Your task to perform on an android device: What's the weather going to be tomorrow? Image 0: 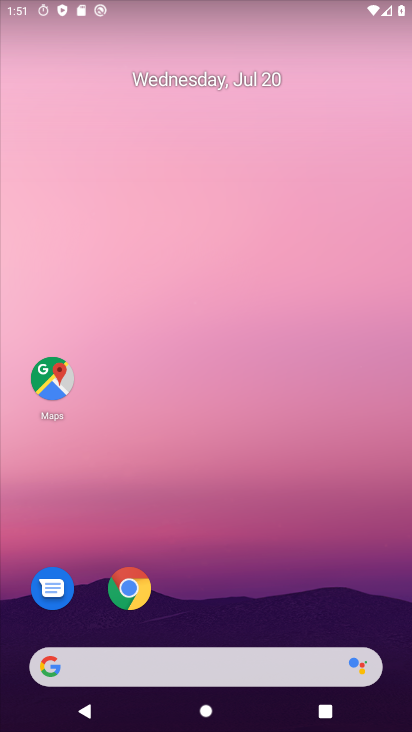
Step 0: drag from (216, 654) to (217, 7)
Your task to perform on an android device: What's the weather going to be tomorrow? Image 1: 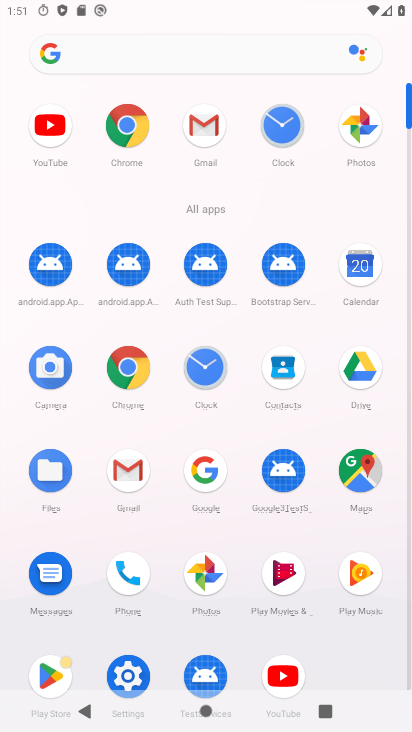
Step 1: click (130, 371)
Your task to perform on an android device: What's the weather going to be tomorrow? Image 2: 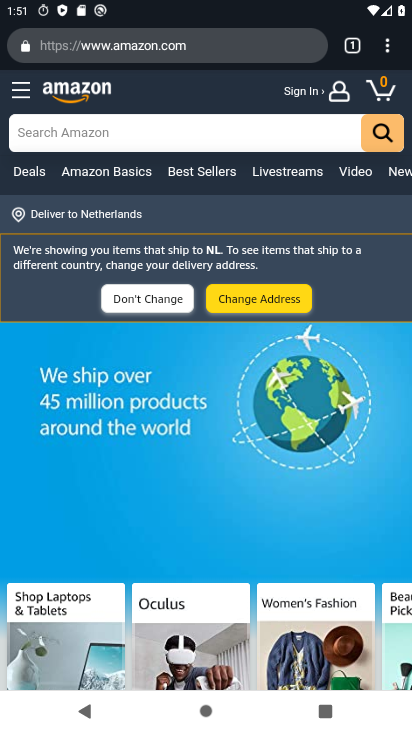
Step 2: click (165, 37)
Your task to perform on an android device: What's the weather going to be tomorrow? Image 3: 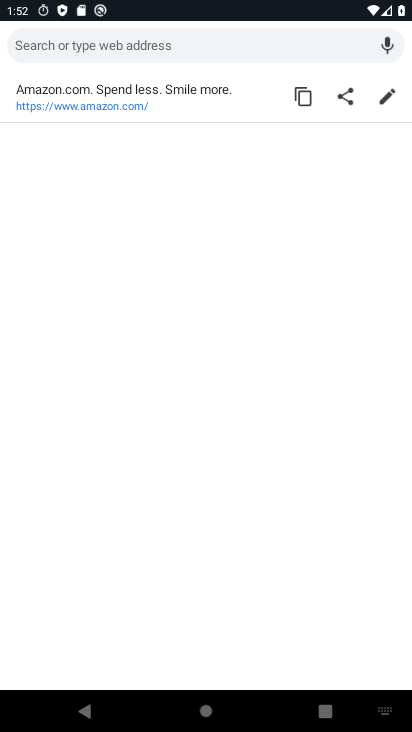
Step 3: type "weather going to be tomorrow"
Your task to perform on an android device: What's the weather going to be tomorrow? Image 4: 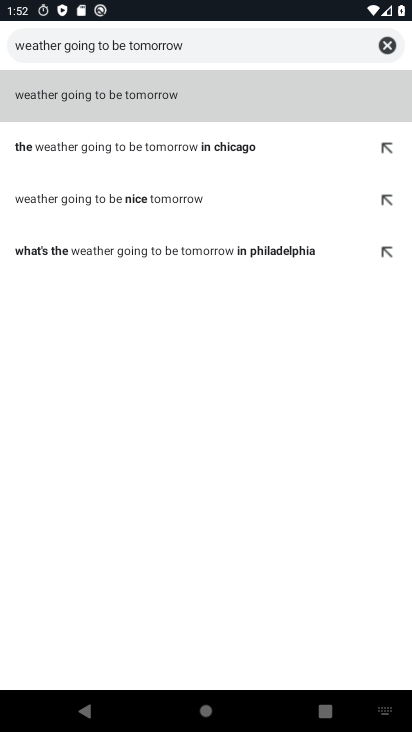
Step 4: click (213, 99)
Your task to perform on an android device: What's the weather going to be tomorrow? Image 5: 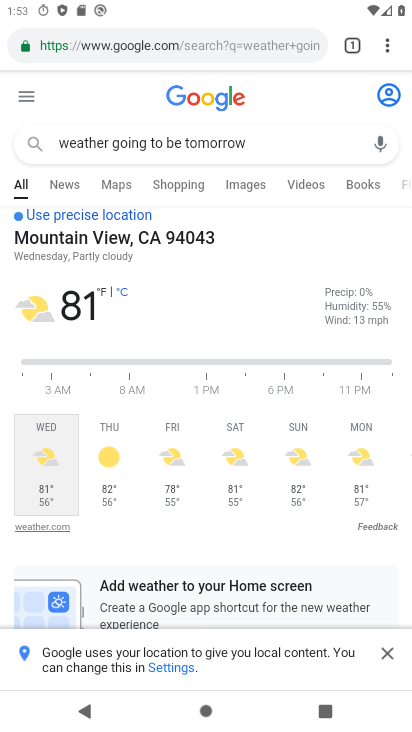
Step 5: task complete